Your task to perform on an android device: add a contact Image 0: 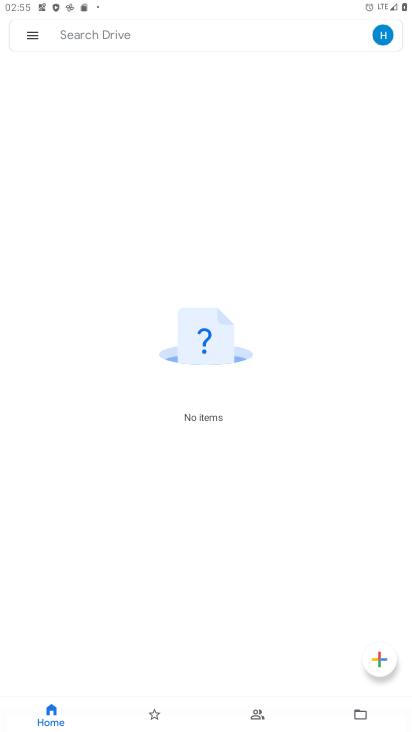
Step 0: press home button
Your task to perform on an android device: add a contact Image 1: 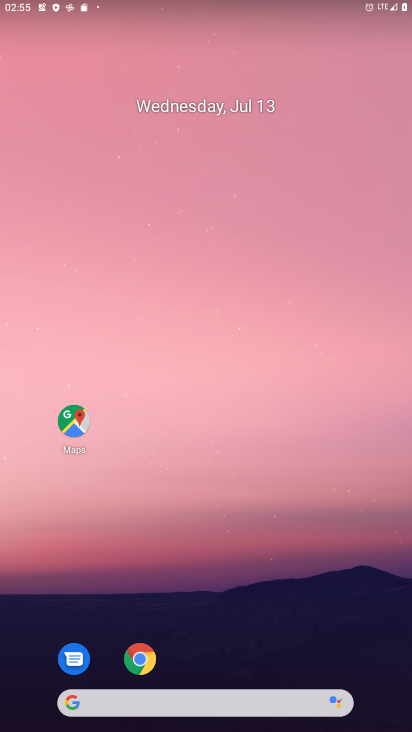
Step 1: click (249, 731)
Your task to perform on an android device: add a contact Image 2: 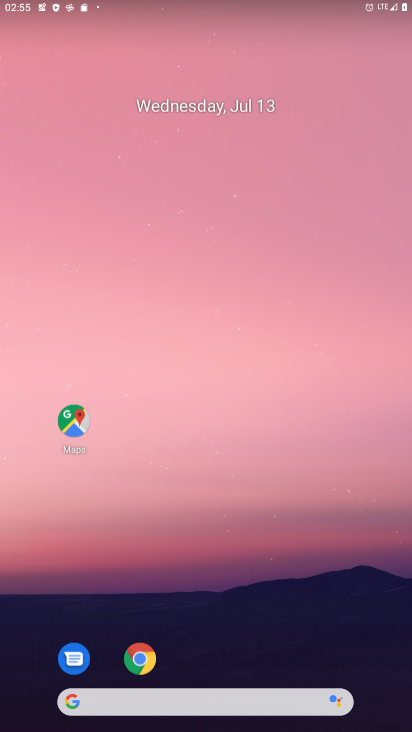
Step 2: drag from (239, 291) to (239, 170)
Your task to perform on an android device: add a contact Image 3: 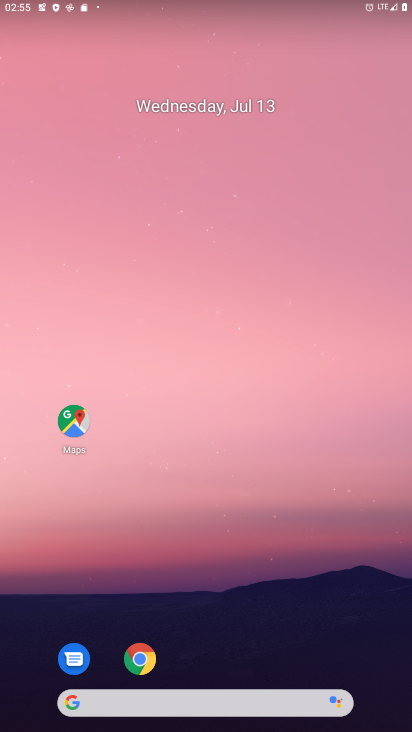
Step 3: drag from (243, 729) to (224, 585)
Your task to perform on an android device: add a contact Image 4: 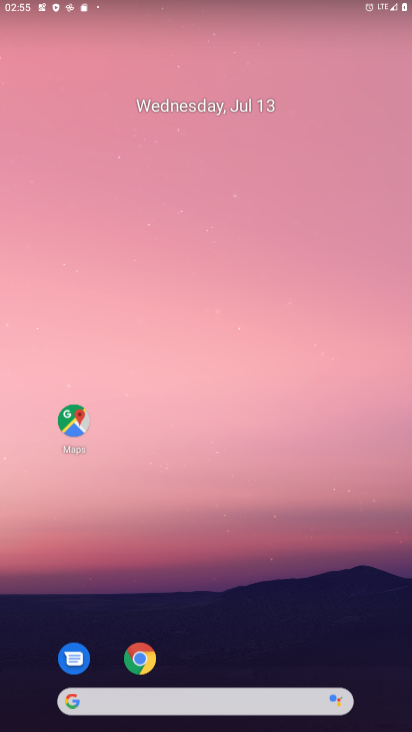
Step 4: drag from (222, 313) to (222, 56)
Your task to perform on an android device: add a contact Image 5: 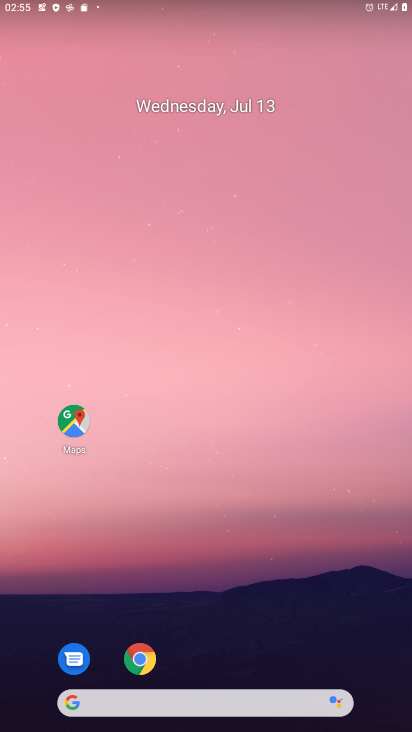
Step 5: click (195, 721)
Your task to perform on an android device: add a contact Image 6: 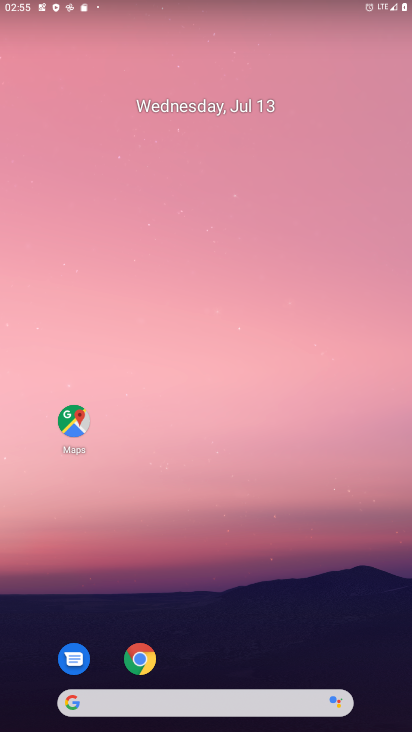
Step 6: drag from (196, 725) to (182, 80)
Your task to perform on an android device: add a contact Image 7: 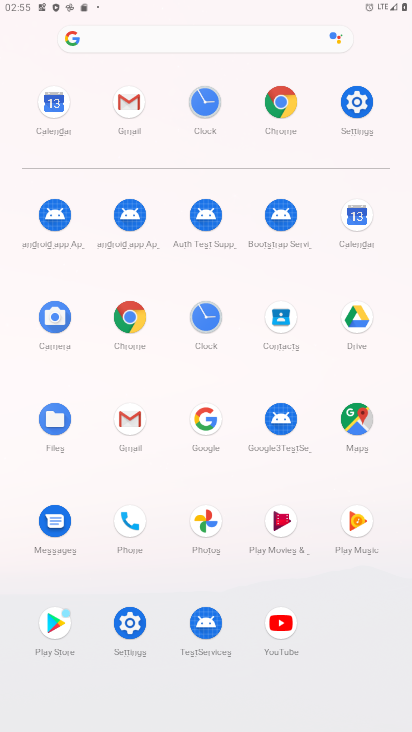
Step 7: click (269, 316)
Your task to perform on an android device: add a contact Image 8: 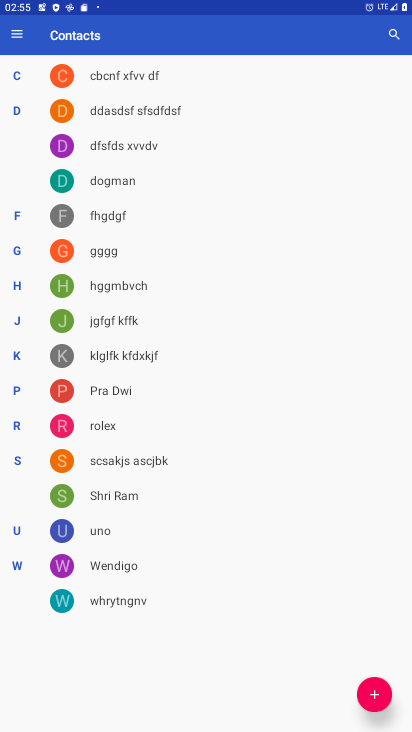
Step 8: click (375, 693)
Your task to perform on an android device: add a contact Image 9: 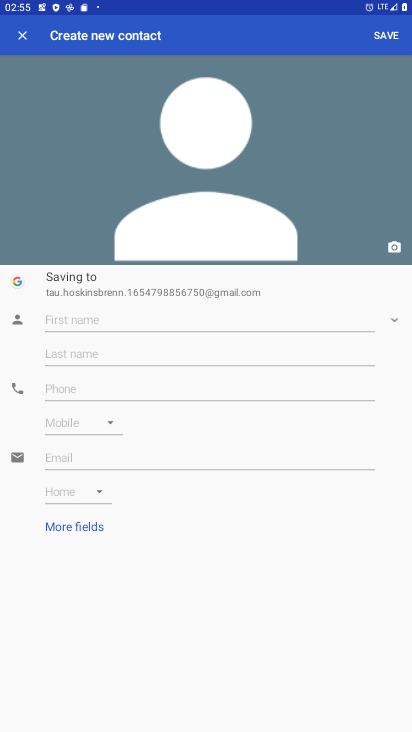
Step 9: click (77, 324)
Your task to perform on an android device: add a contact Image 10: 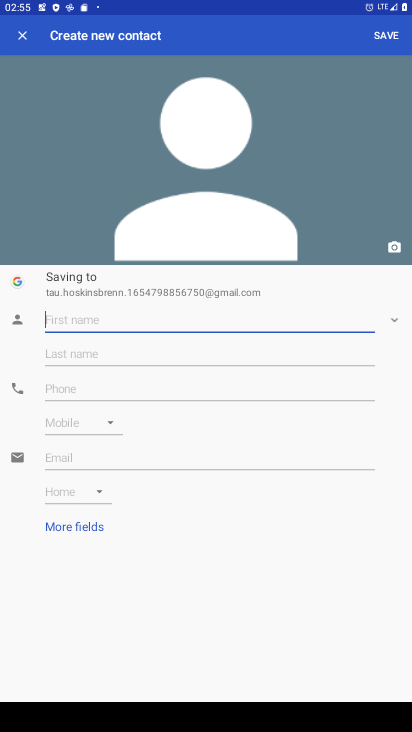
Step 10: type "uiui"
Your task to perform on an android device: add a contact Image 11: 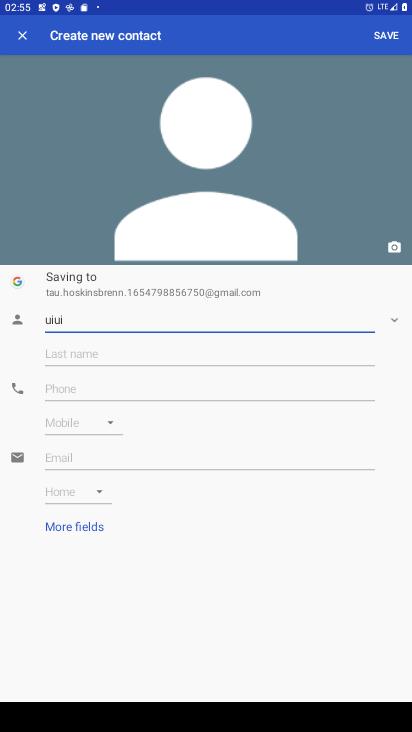
Step 11: click (88, 378)
Your task to perform on an android device: add a contact Image 12: 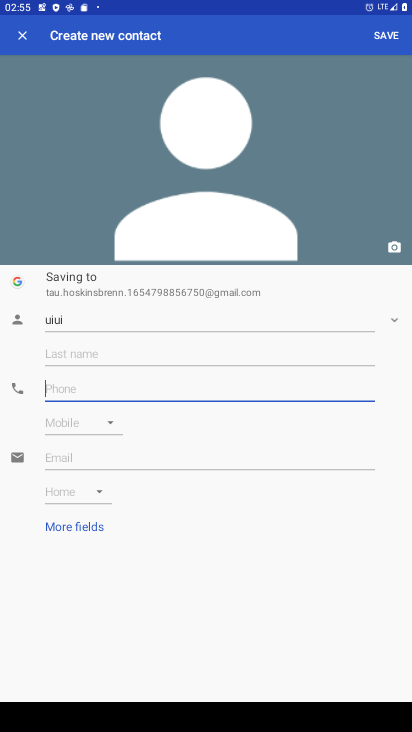
Step 12: type "9876"
Your task to perform on an android device: add a contact Image 13: 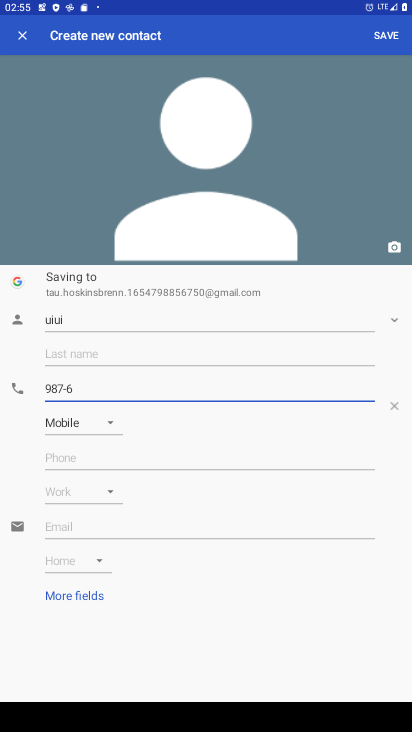
Step 13: click (388, 34)
Your task to perform on an android device: add a contact Image 14: 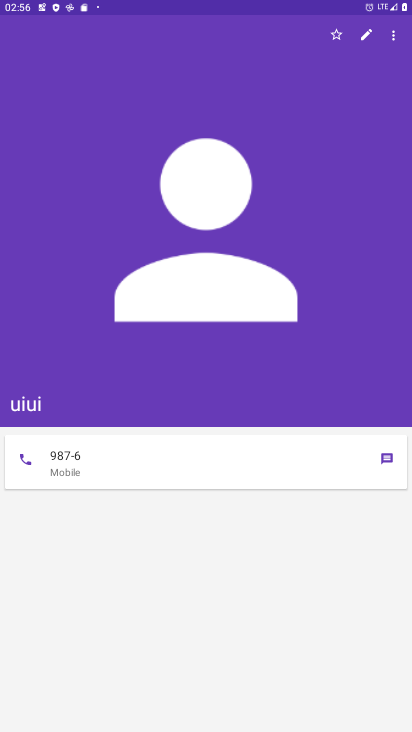
Step 14: task complete